Your task to perform on an android device: Do I have any events this weekend? Image 0: 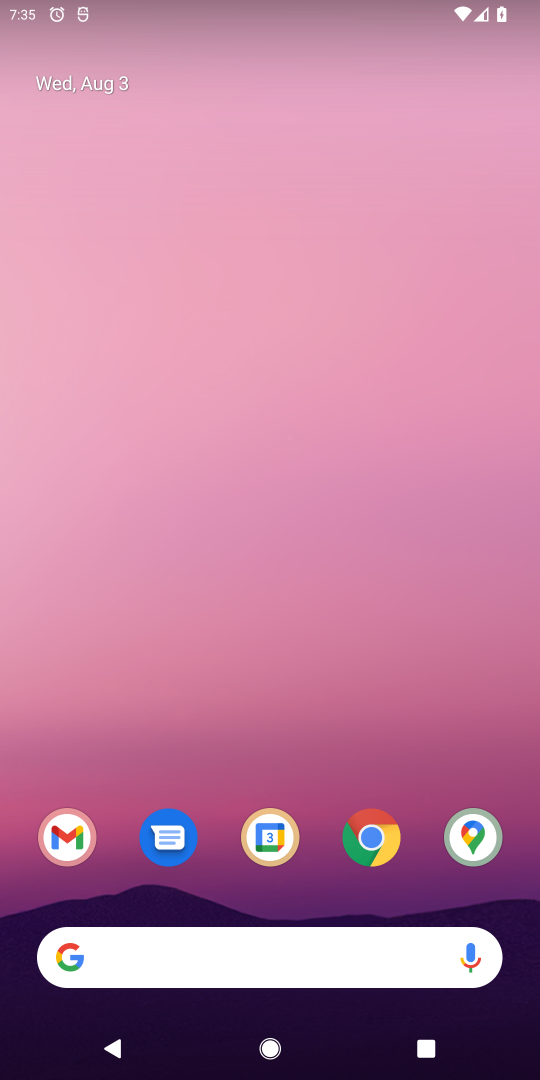
Step 0: press home button
Your task to perform on an android device: Do I have any events this weekend? Image 1: 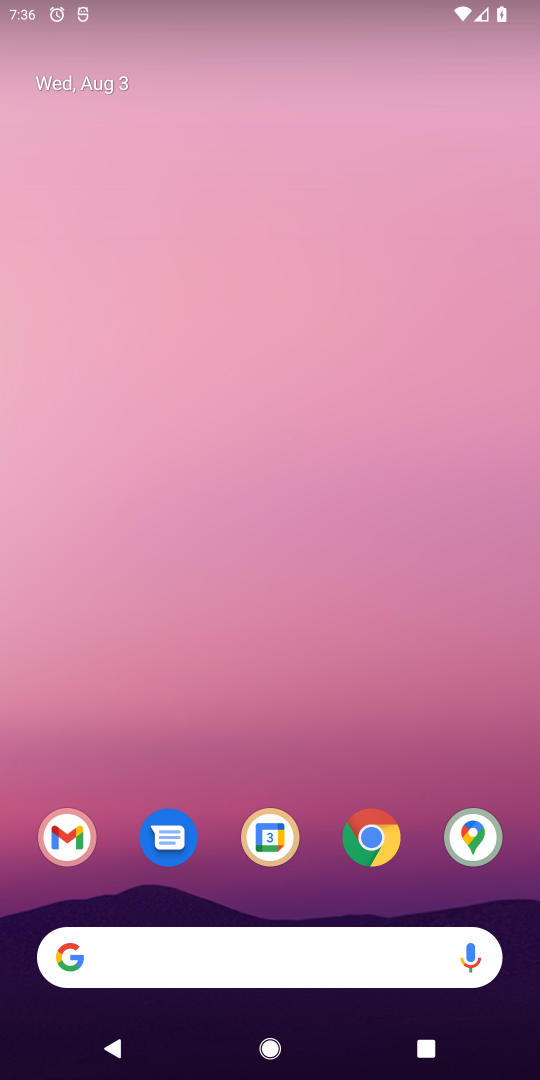
Step 1: press home button
Your task to perform on an android device: Do I have any events this weekend? Image 2: 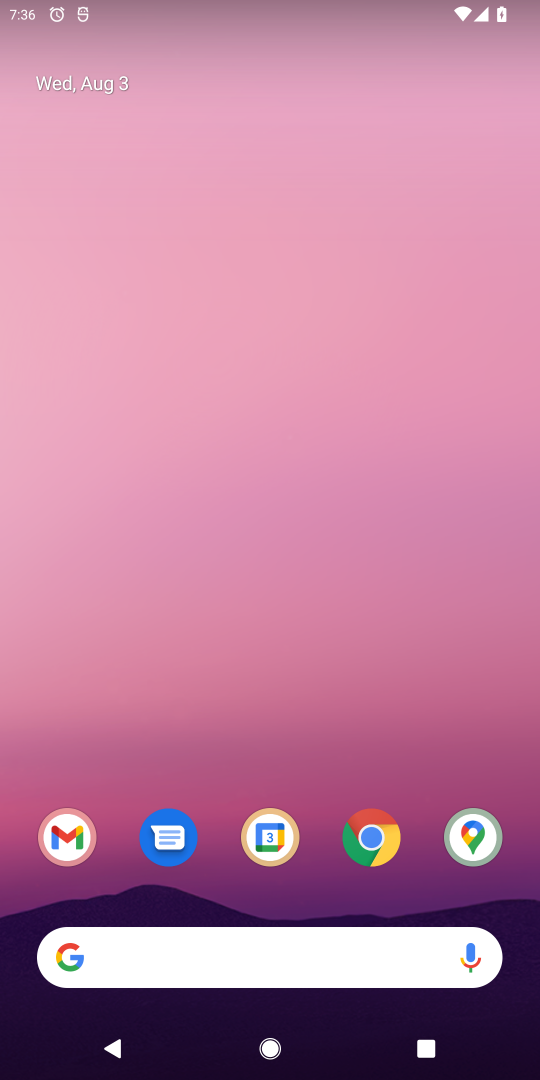
Step 2: drag from (312, 892) to (428, 133)
Your task to perform on an android device: Do I have any events this weekend? Image 3: 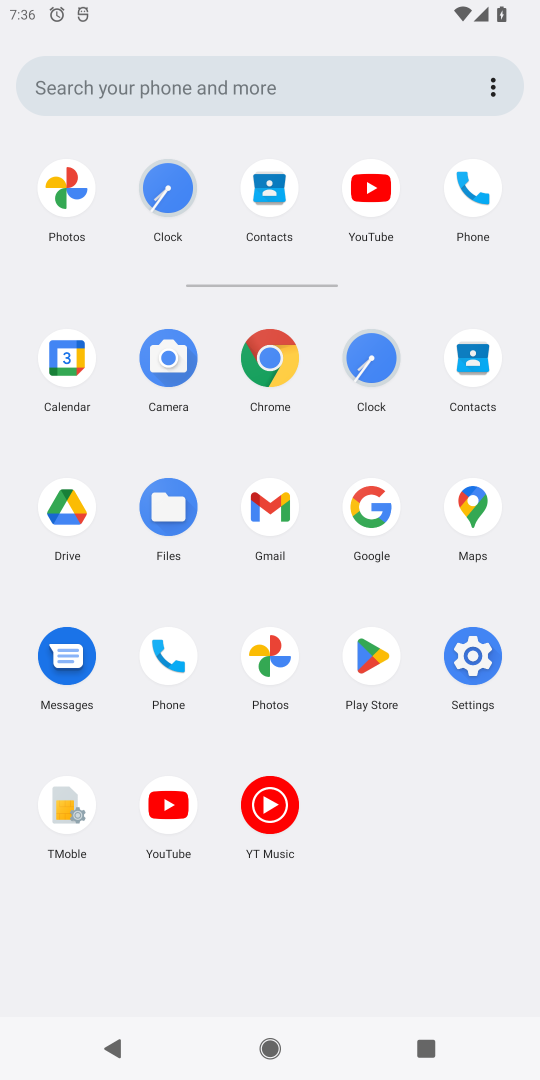
Step 3: click (63, 360)
Your task to perform on an android device: Do I have any events this weekend? Image 4: 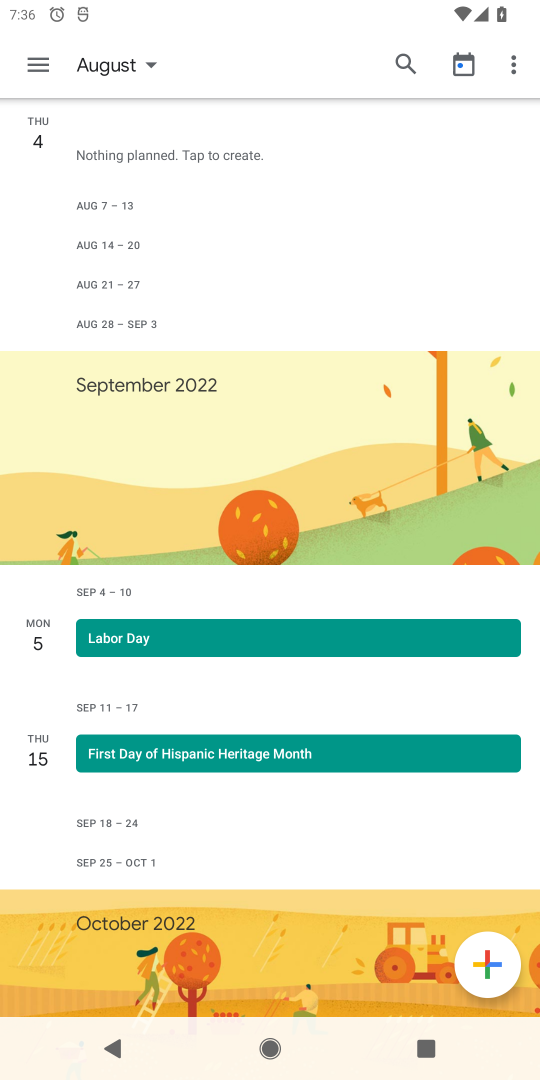
Step 4: click (29, 66)
Your task to perform on an android device: Do I have any events this weekend? Image 5: 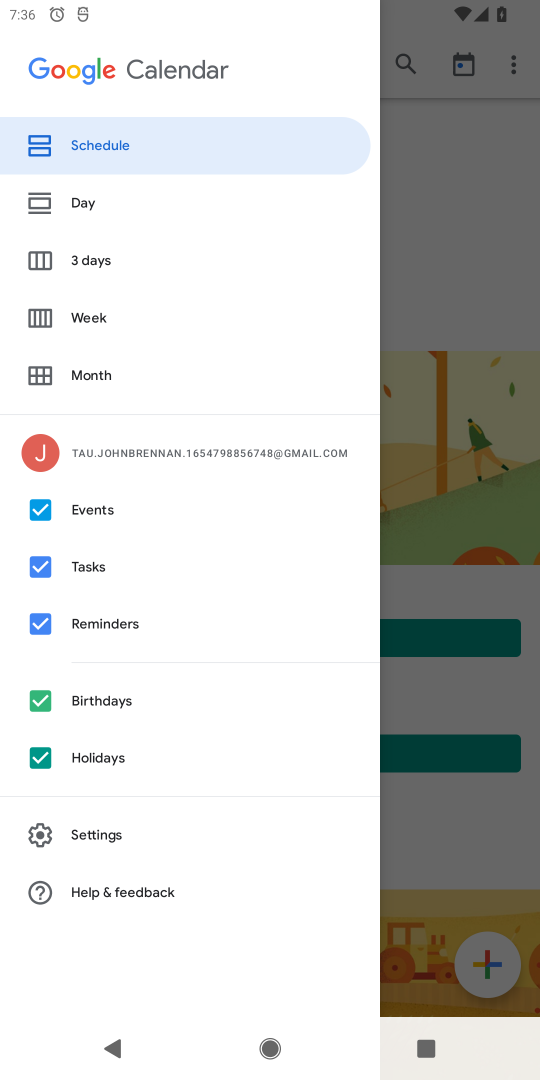
Step 5: click (96, 323)
Your task to perform on an android device: Do I have any events this weekend? Image 6: 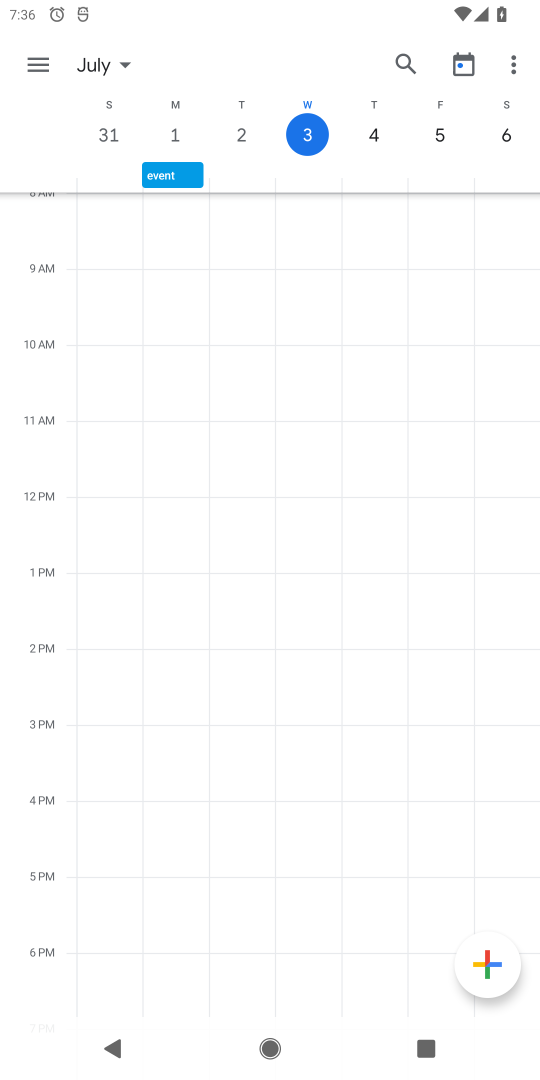
Step 6: task complete